Your task to perform on an android device: Open eBay Image 0: 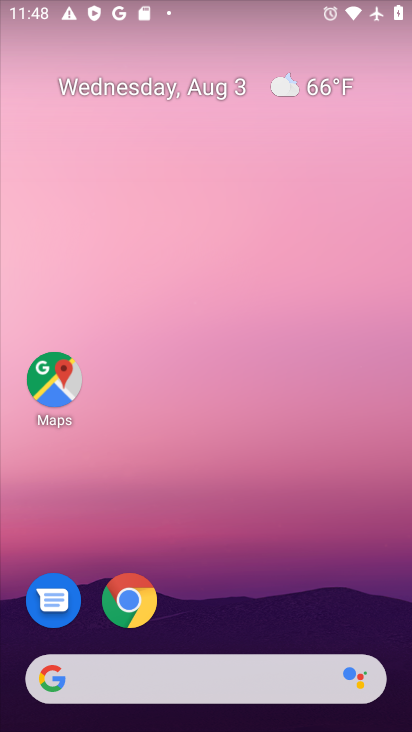
Step 0: click (138, 603)
Your task to perform on an android device: Open eBay Image 1: 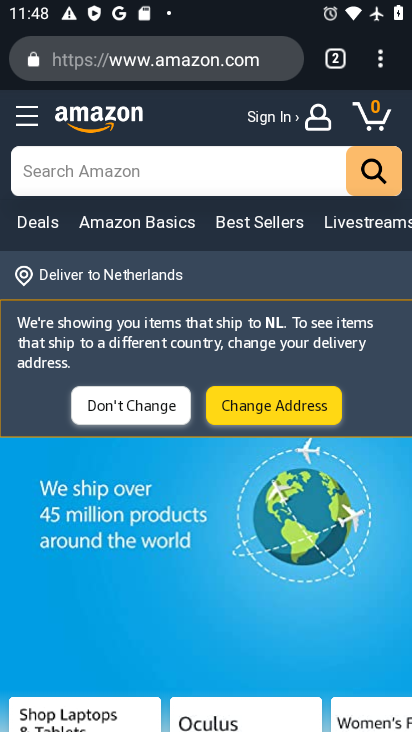
Step 1: click (340, 63)
Your task to perform on an android device: Open eBay Image 2: 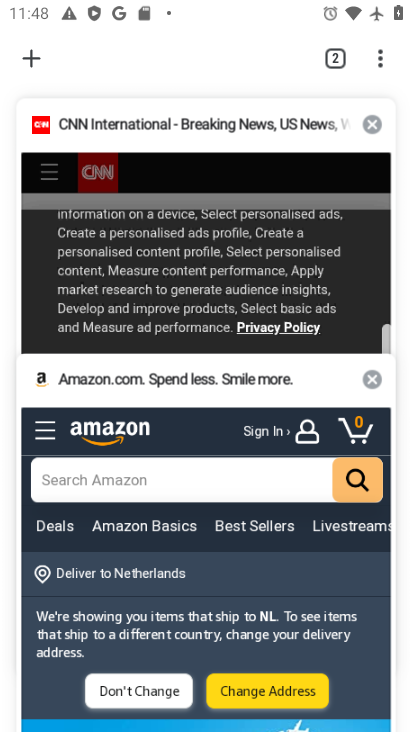
Step 2: click (37, 61)
Your task to perform on an android device: Open eBay Image 3: 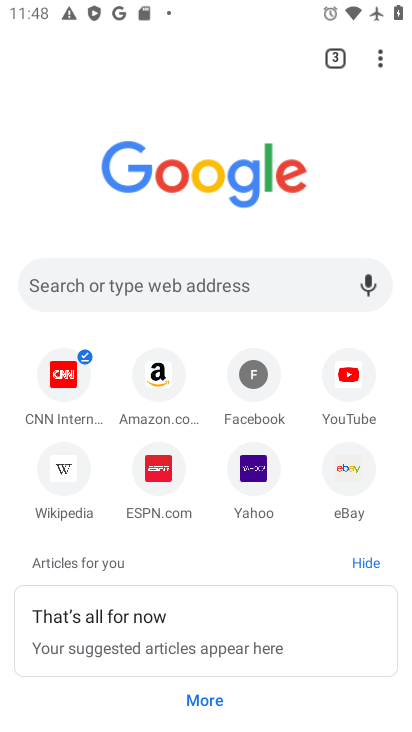
Step 3: click (348, 451)
Your task to perform on an android device: Open eBay Image 4: 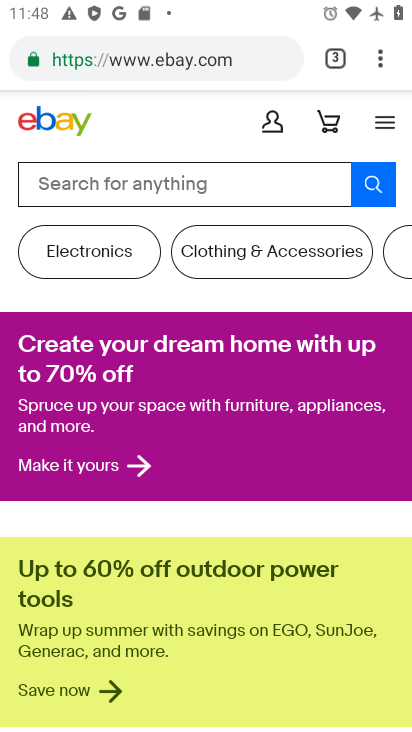
Step 4: task complete